Your task to perform on an android device: Open privacy settings Image 0: 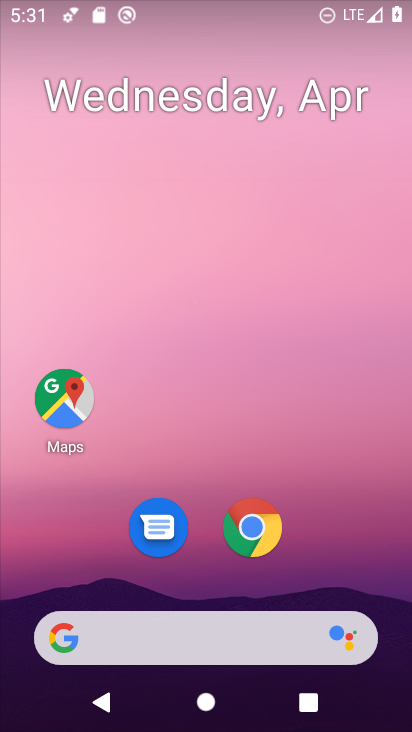
Step 0: drag from (343, 600) to (331, 3)
Your task to perform on an android device: Open privacy settings Image 1: 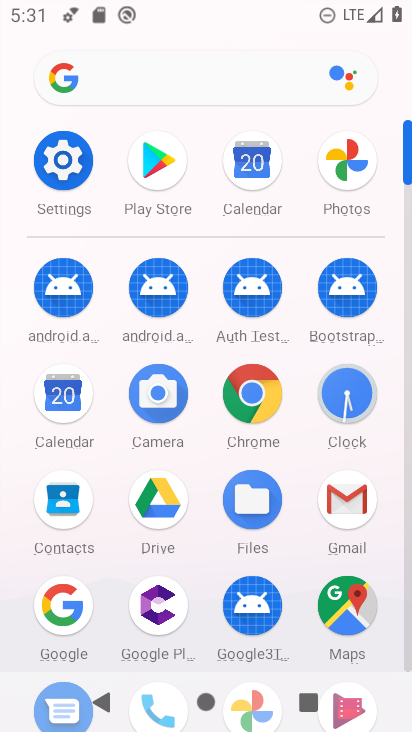
Step 1: click (66, 172)
Your task to perform on an android device: Open privacy settings Image 2: 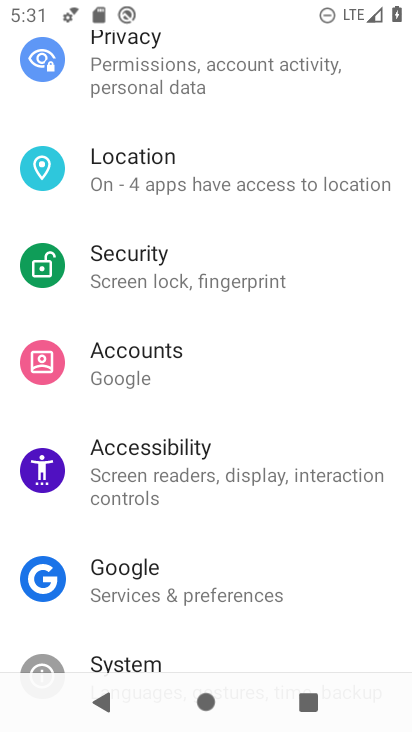
Step 2: click (123, 80)
Your task to perform on an android device: Open privacy settings Image 3: 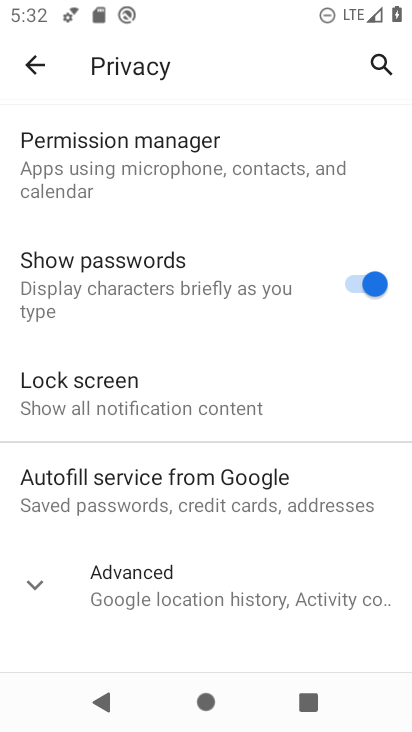
Step 3: task complete